Your task to perform on an android device: Is it going to rain this weekend? Image 0: 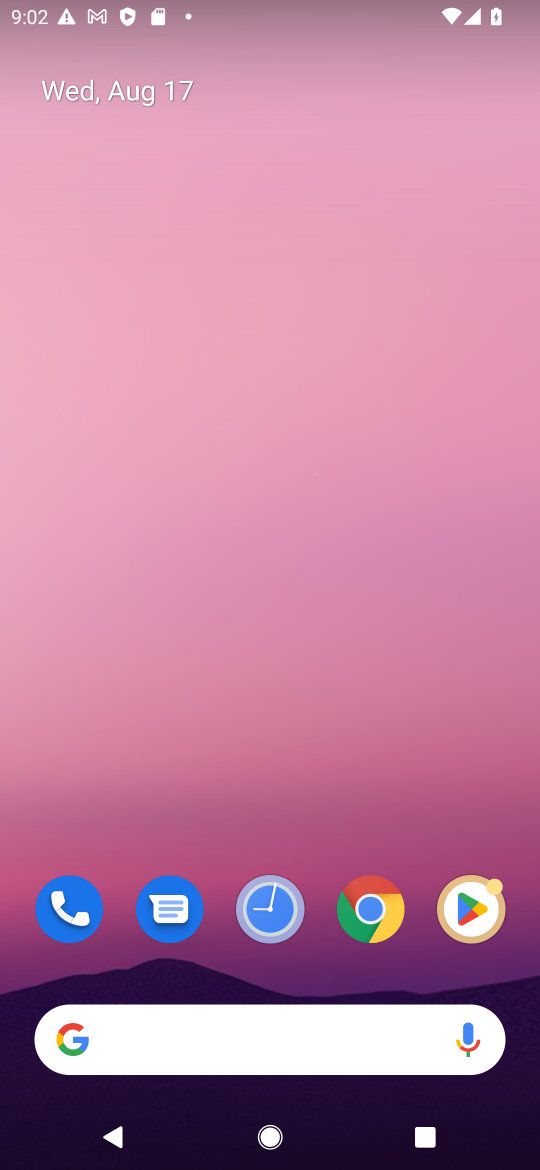
Step 0: drag from (322, 807) to (315, 135)
Your task to perform on an android device: Is it going to rain this weekend? Image 1: 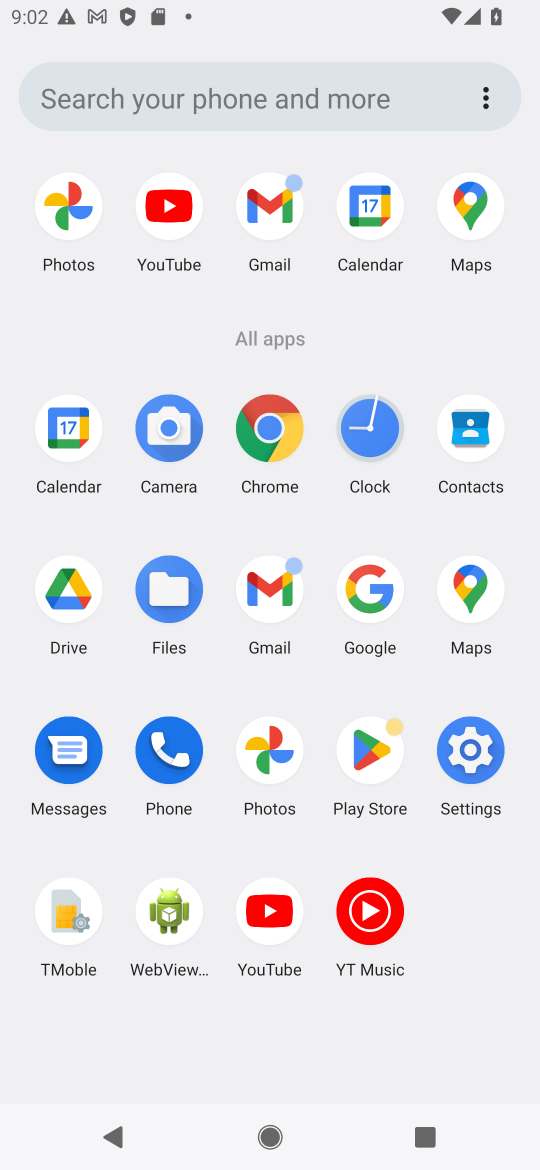
Step 1: drag from (410, 679) to (373, 174)
Your task to perform on an android device: Is it going to rain this weekend? Image 2: 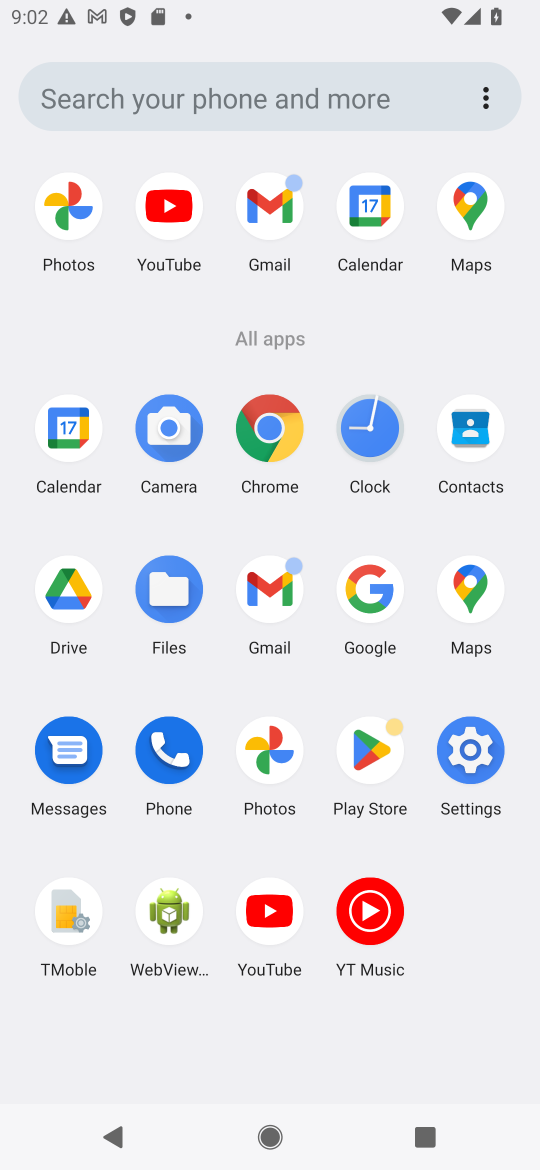
Step 2: click (67, 409)
Your task to perform on an android device: Is it going to rain this weekend? Image 3: 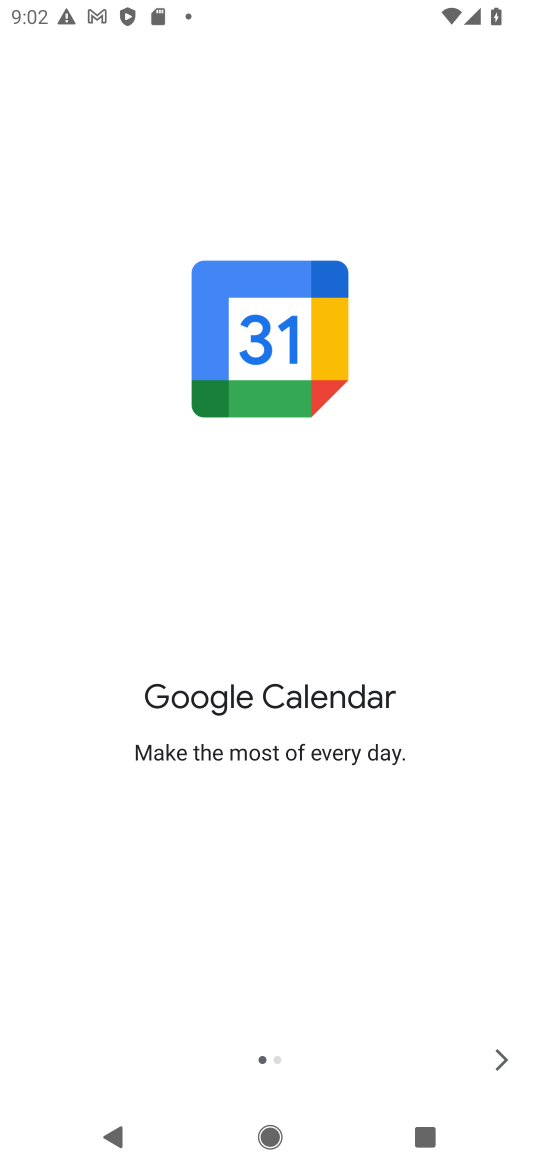
Step 3: click (508, 1057)
Your task to perform on an android device: Is it going to rain this weekend? Image 4: 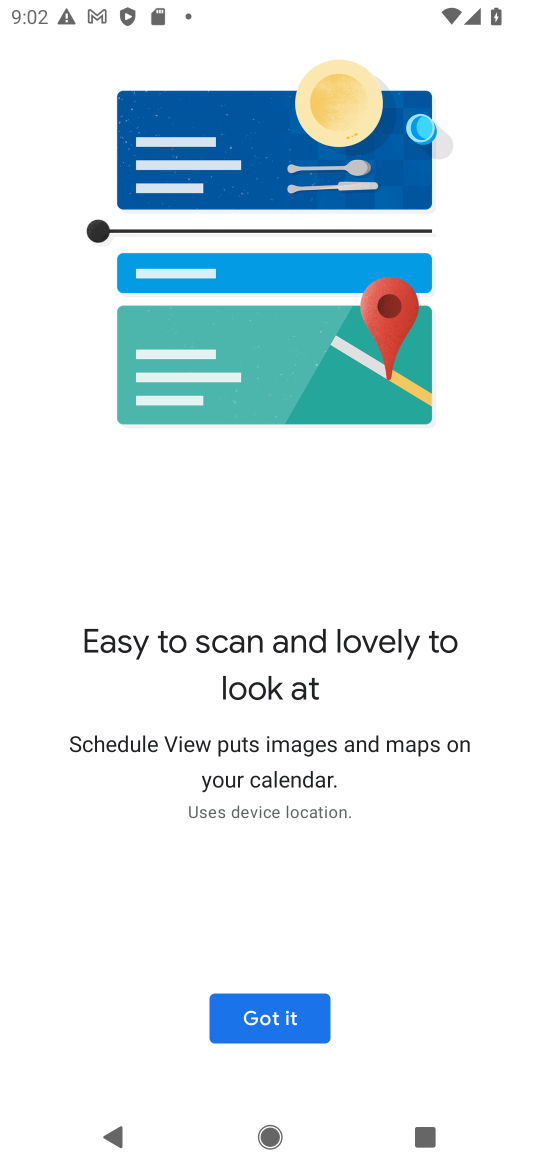
Step 4: click (308, 1007)
Your task to perform on an android device: Is it going to rain this weekend? Image 5: 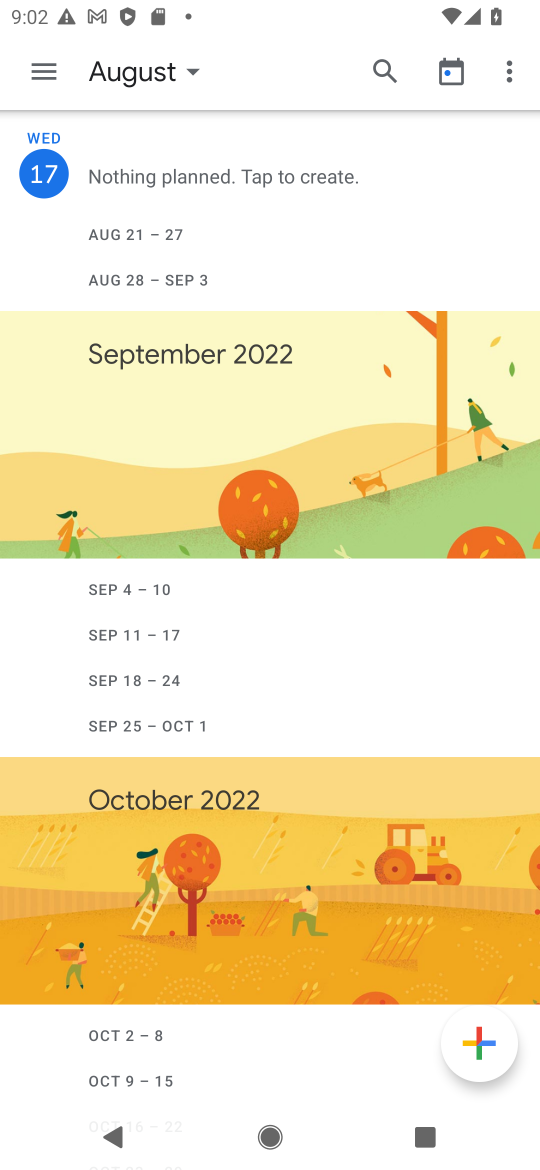
Step 5: click (150, 75)
Your task to perform on an android device: Is it going to rain this weekend? Image 6: 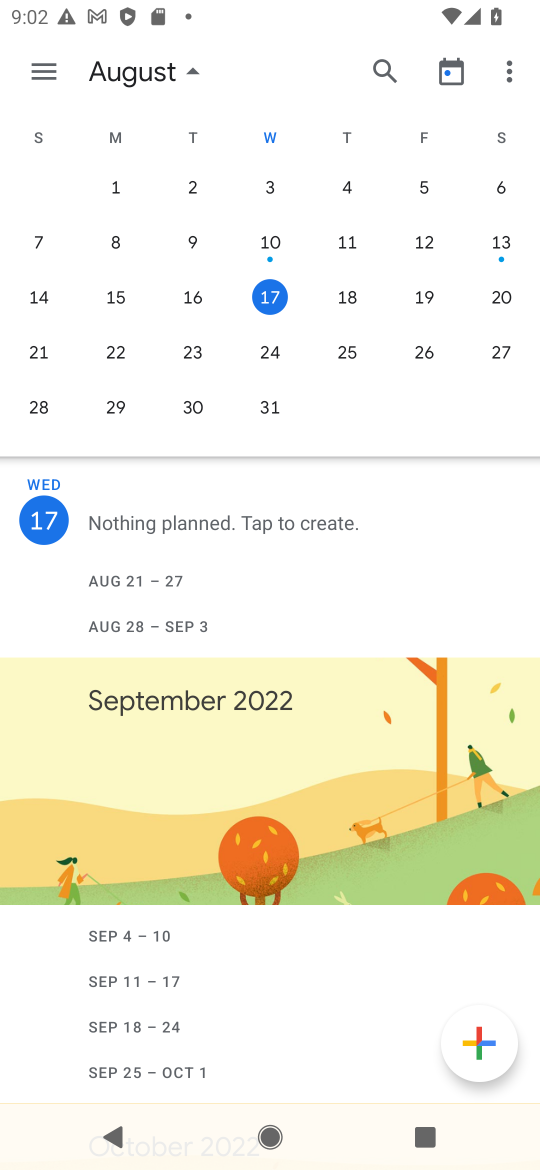
Step 6: press home button
Your task to perform on an android device: Is it going to rain this weekend? Image 7: 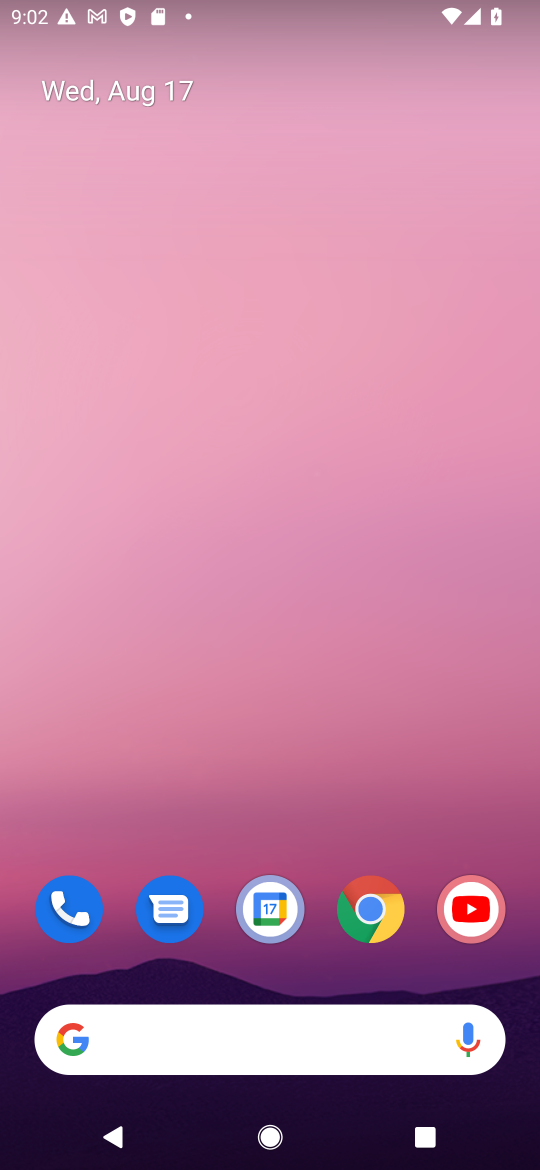
Step 7: drag from (379, 754) to (360, 58)
Your task to perform on an android device: Is it going to rain this weekend? Image 8: 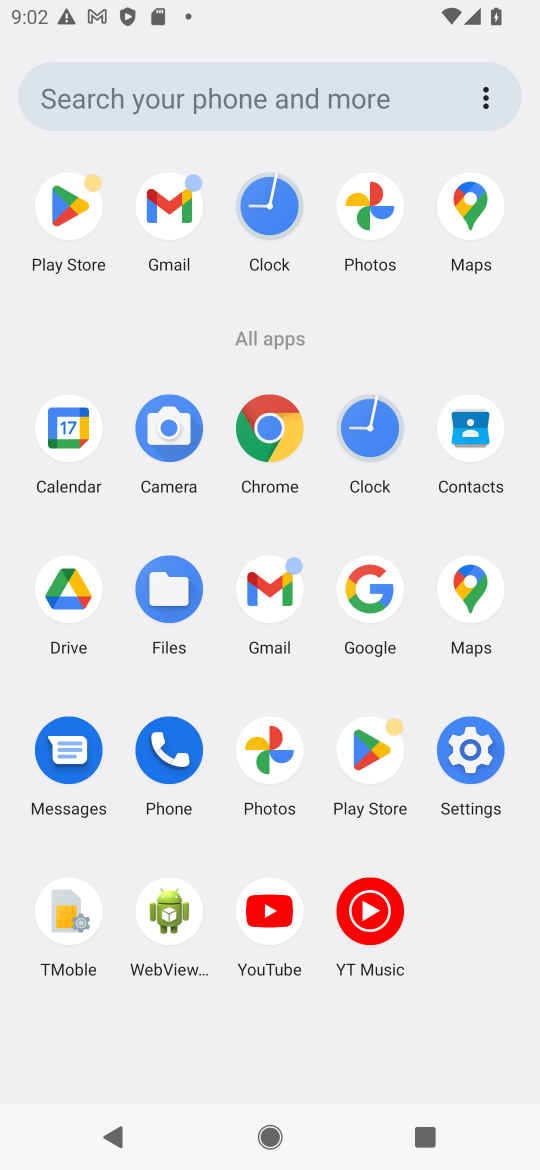
Step 8: click (271, 412)
Your task to perform on an android device: Is it going to rain this weekend? Image 9: 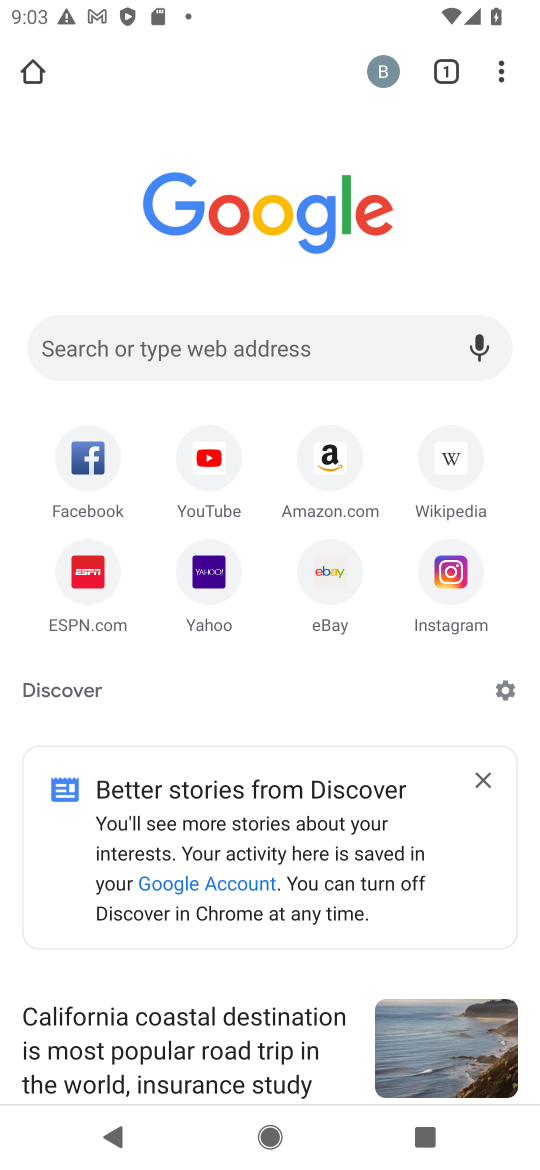
Step 9: click (217, 341)
Your task to perform on an android device: Is it going to rain this weekend? Image 10: 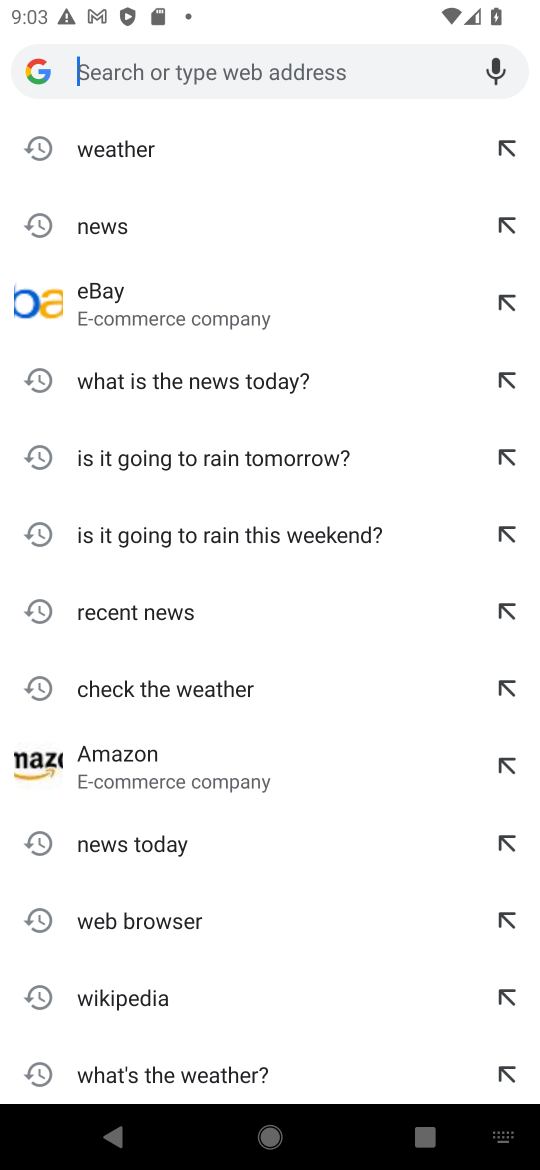
Step 10: type "Is it going to rain this weekend?"
Your task to perform on an android device: Is it going to rain this weekend? Image 11: 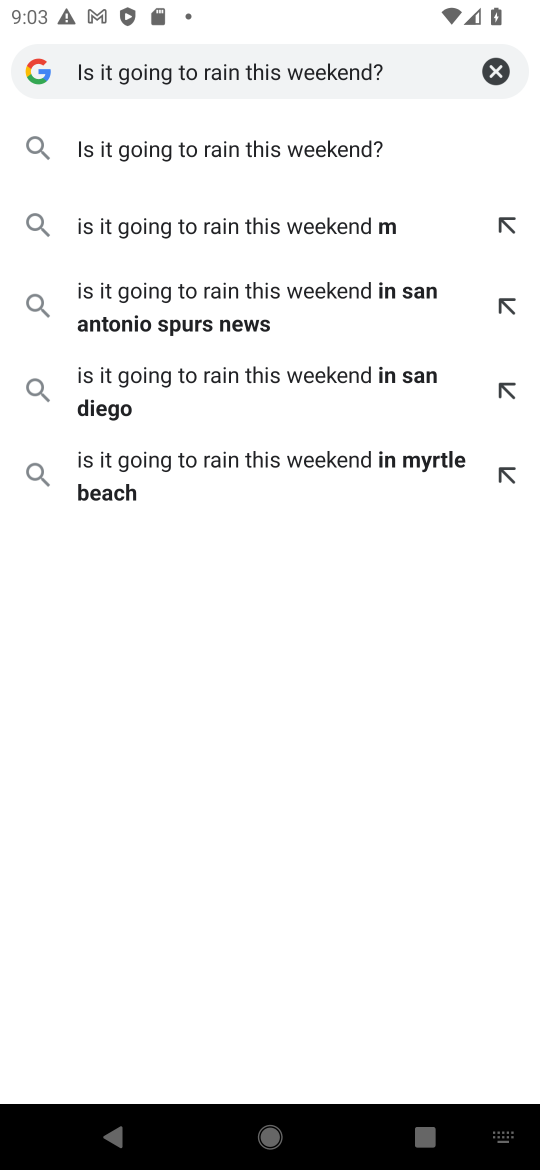
Step 11: click (273, 148)
Your task to perform on an android device: Is it going to rain this weekend? Image 12: 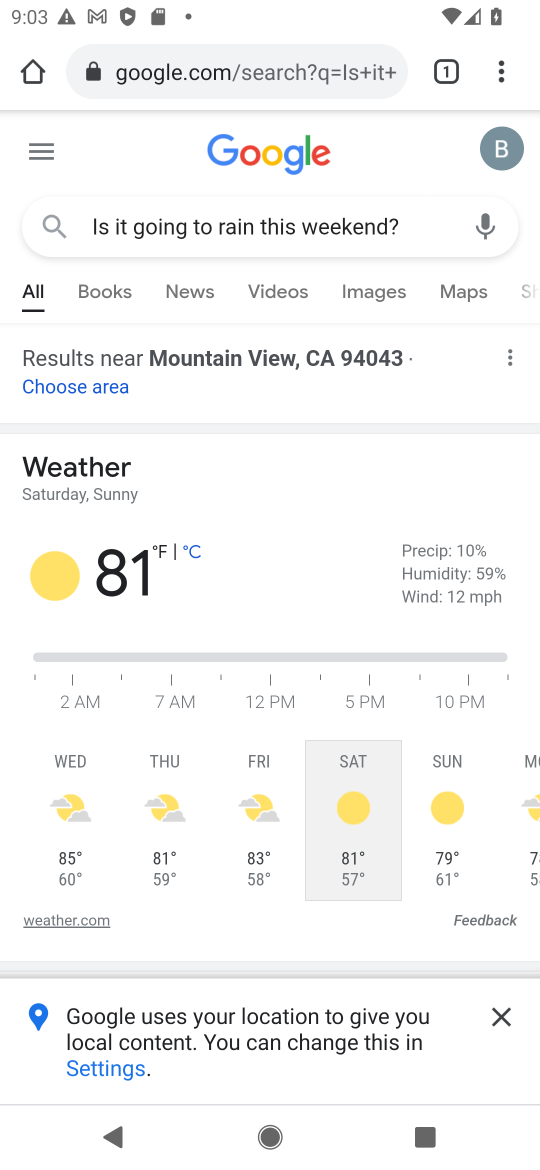
Step 12: task complete